Your task to perform on an android device: change your default location settings in chrome Image 0: 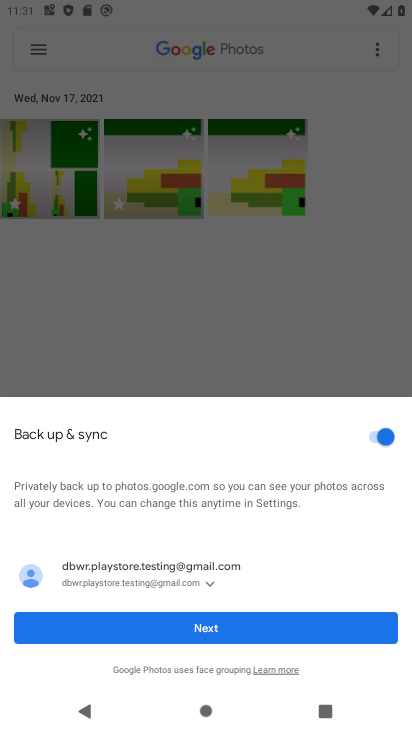
Step 0: press home button
Your task to perform on an android device: change your default location settings in chrome Image 1: 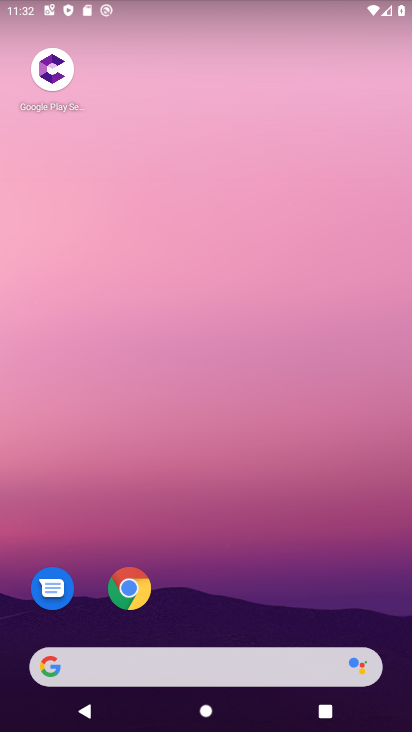
Step 1: drag from (253, 491) to (311, 36)
Your task to perform on an android device: change your default location settings in chrome Image 2: 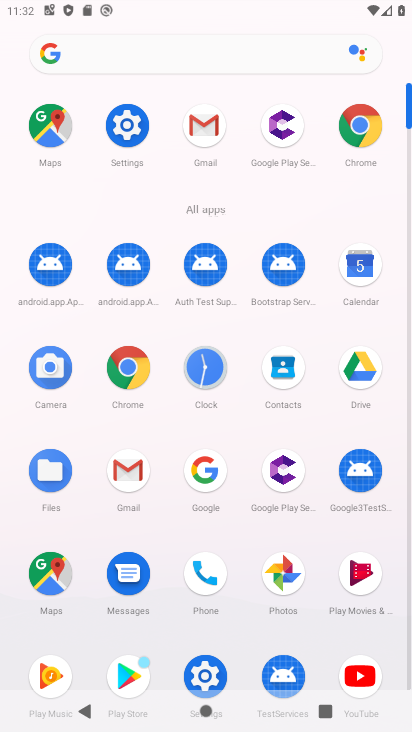
Step 2: click (366, 123)
Your task to perform on an android device: change your default location settings in chrome Image 3: 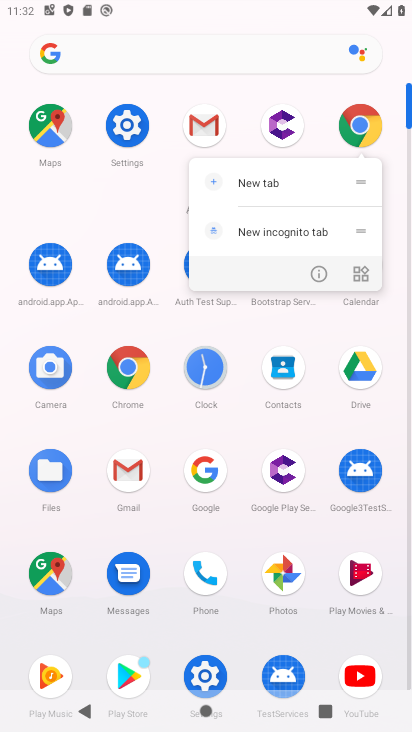
Step 3: click (366, 122)
Your task to perform on an android device: change your default location settings in chrome Image 4: 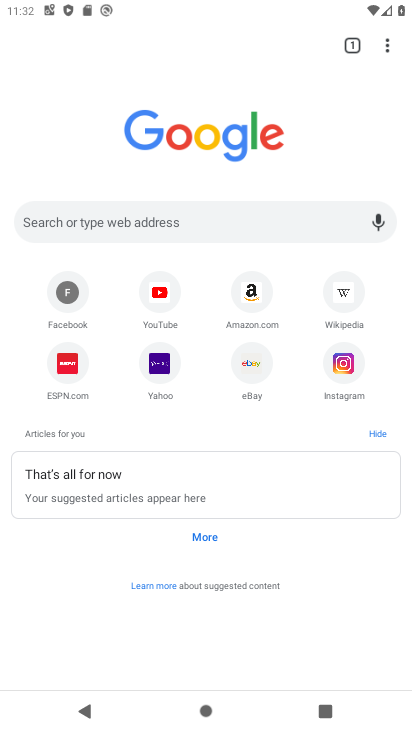
Step 4: drag from (385, 48) to (260, 385)
Your task to perform on an android device: change your default location settings in chrome Image 5: 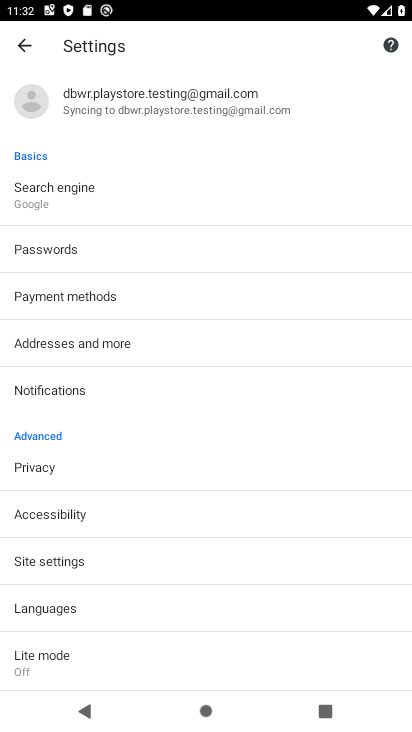
Step 5: click (80, 555)
Your task to perform on an android device: change your default location settings in chrome Image 6: 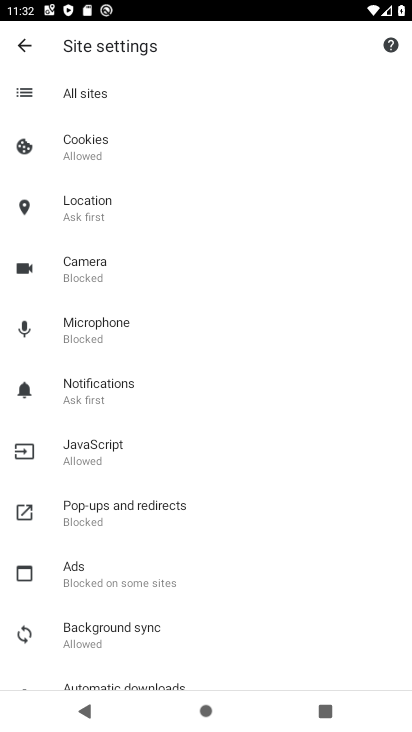
Step 6: click (135, 208)
Your task to perform on an android device: change your default location settings in chrome Image 7: 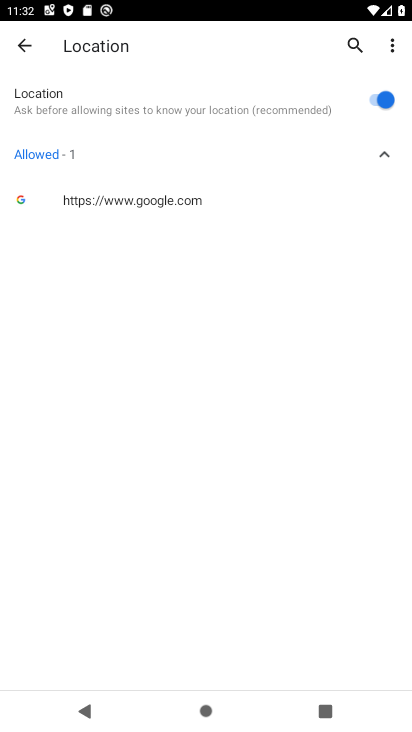
Step 7: click (365, 88)
Your task to perform on an android device: change your default location settings in chrome Image 8: 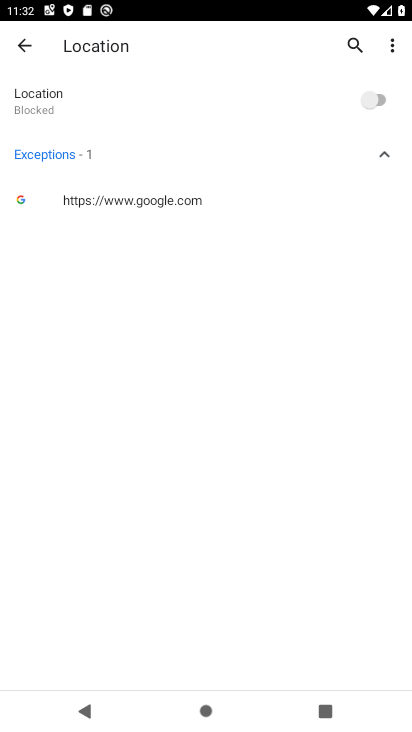
Step 8: task complete